Your task to perform on an android device: turn off location history Image 0: 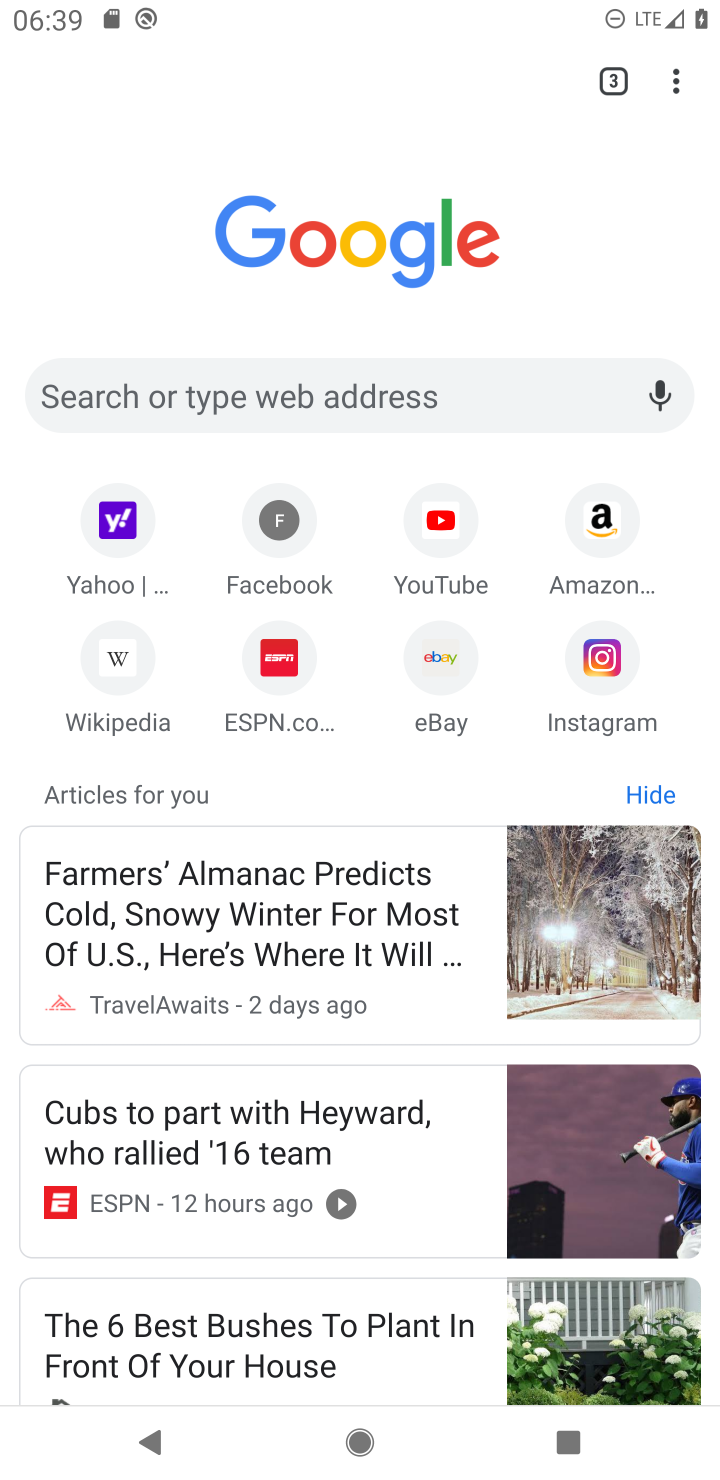
Step 0: press home button
Your task to perform on an android device: turn off location history Image 1: 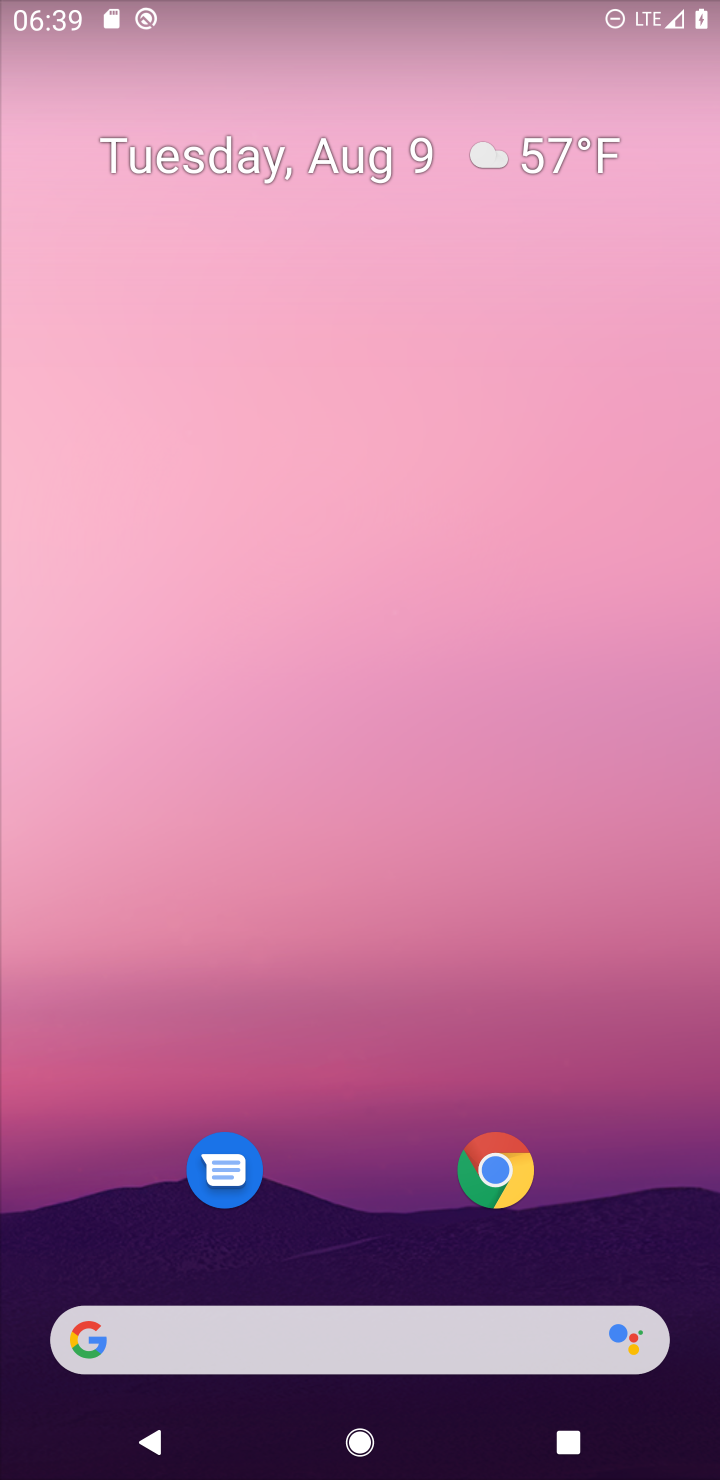
Step 1: drag from (363, 1191) to (420, 64)
Your task to perform on an android device: turn off location history Image 2: 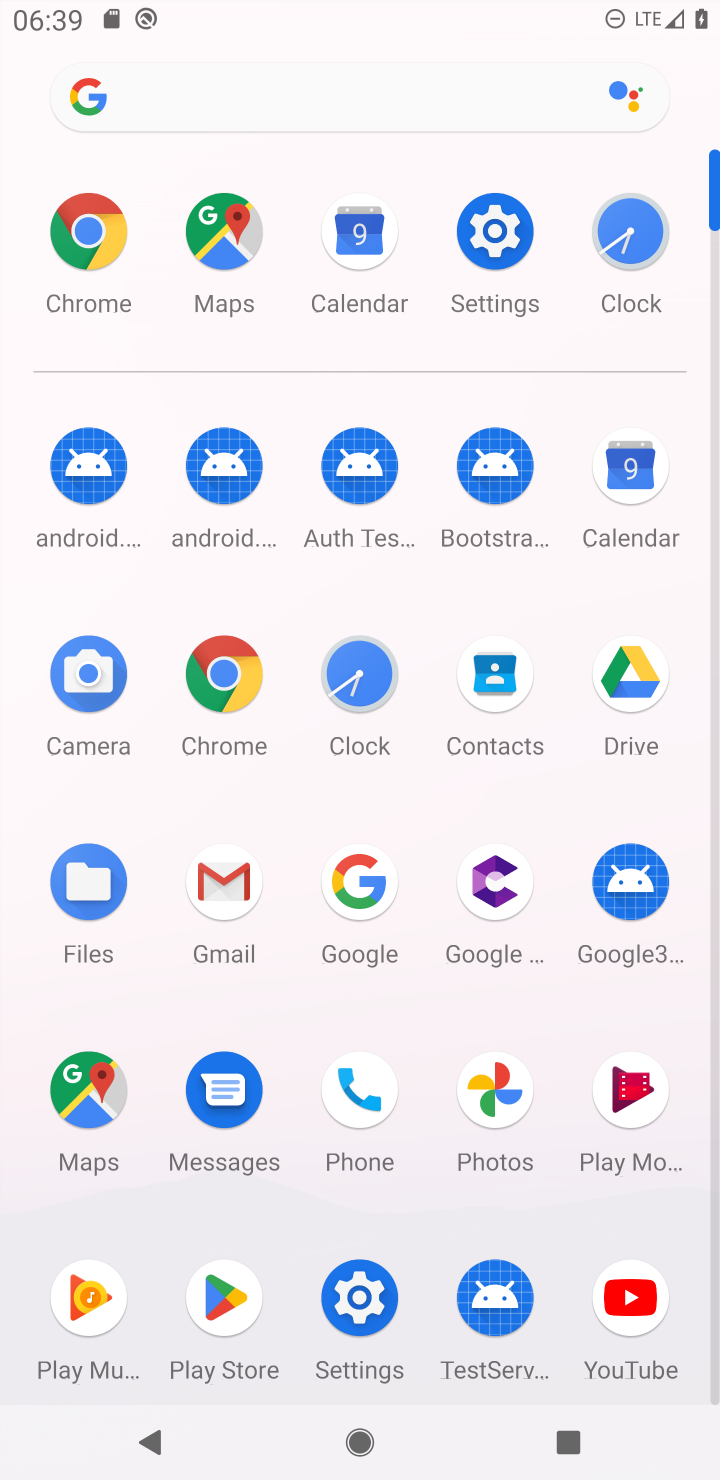
Step 2: click (497, 223)
Your task to perform on an android device: turn off location history Image 3: 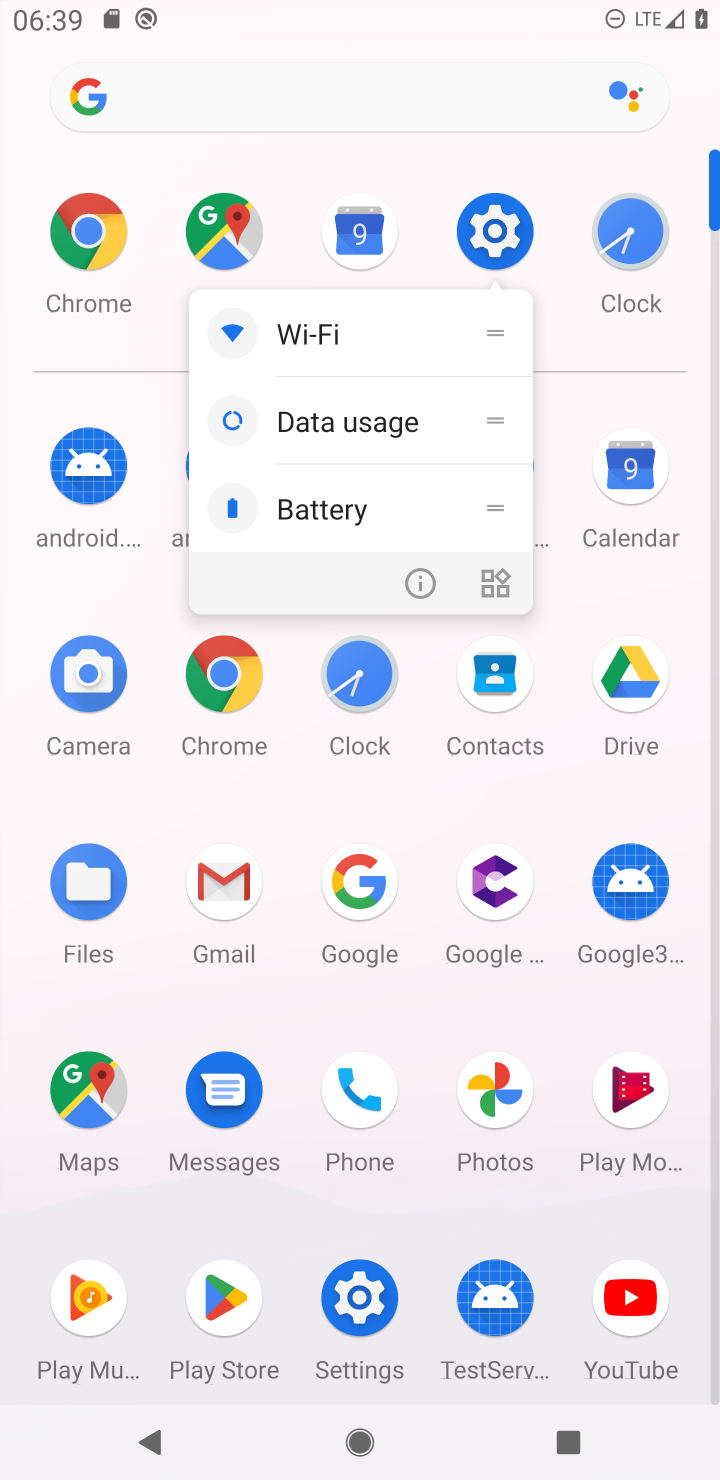
Step 3: click (497, 223)
Your task to perform on an android device: turn off location history Image 4: 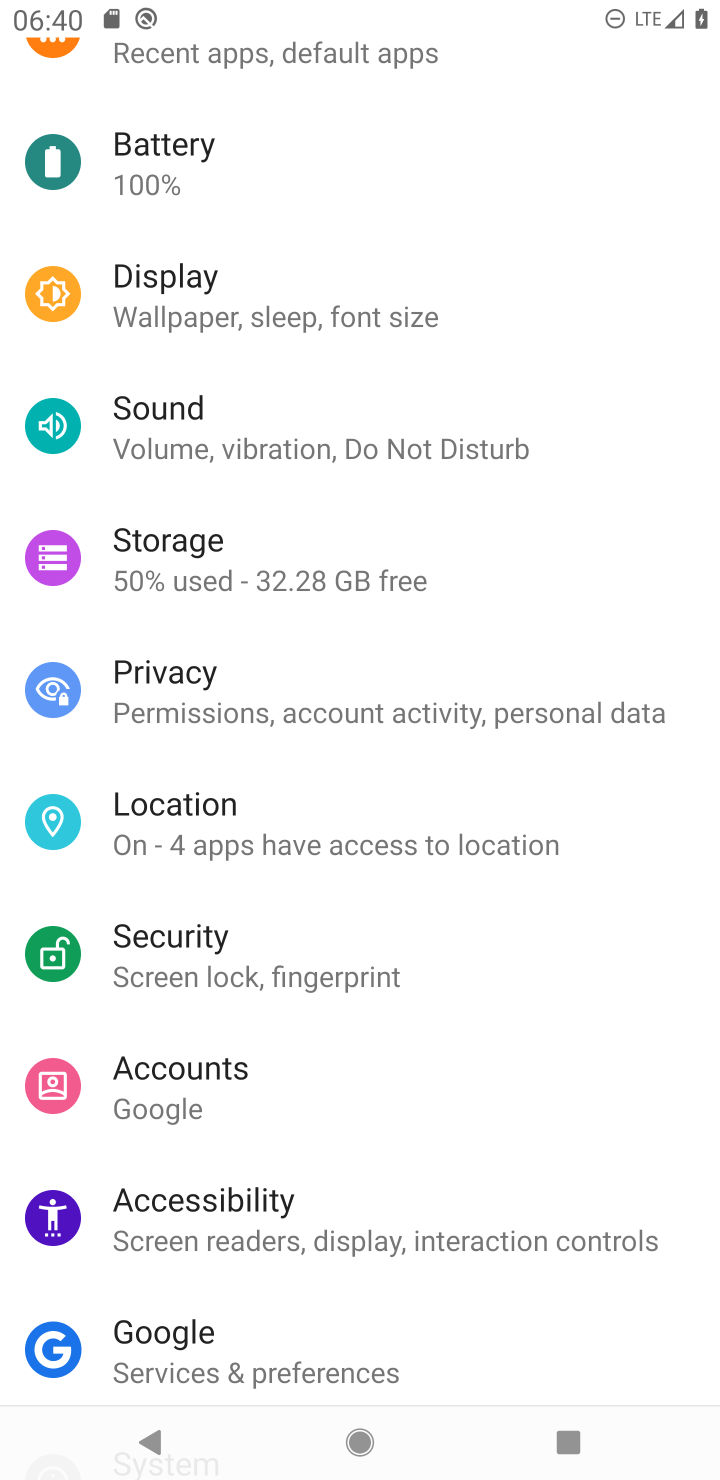
Step 4: click (171, 824)
Your task to perform on an android device: turn off location history Image 5: 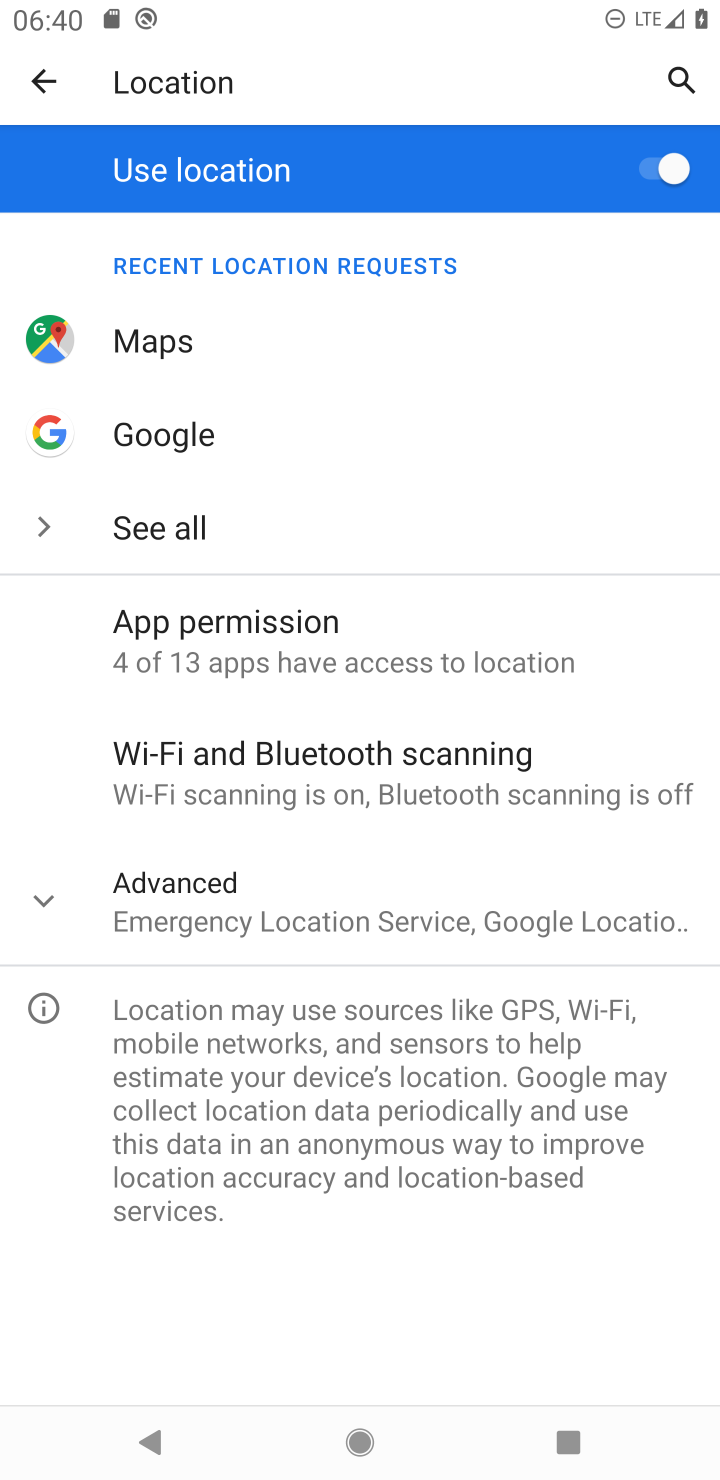
Step 5: click (191, 903)
Your task to perform on an android device: turn off location history Image 6: 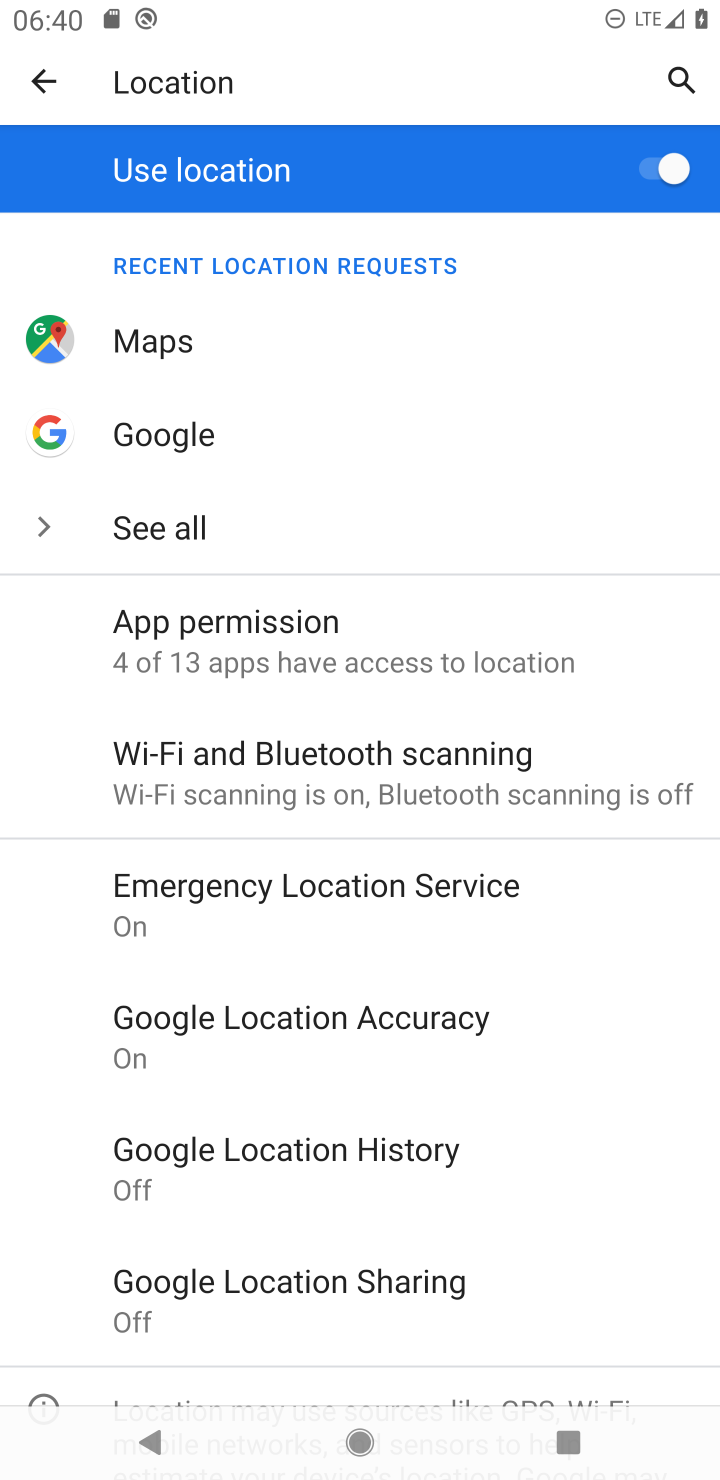
Step 6: click (243, 1161)
Your task to perform on an android device: turn off location history Image 7: 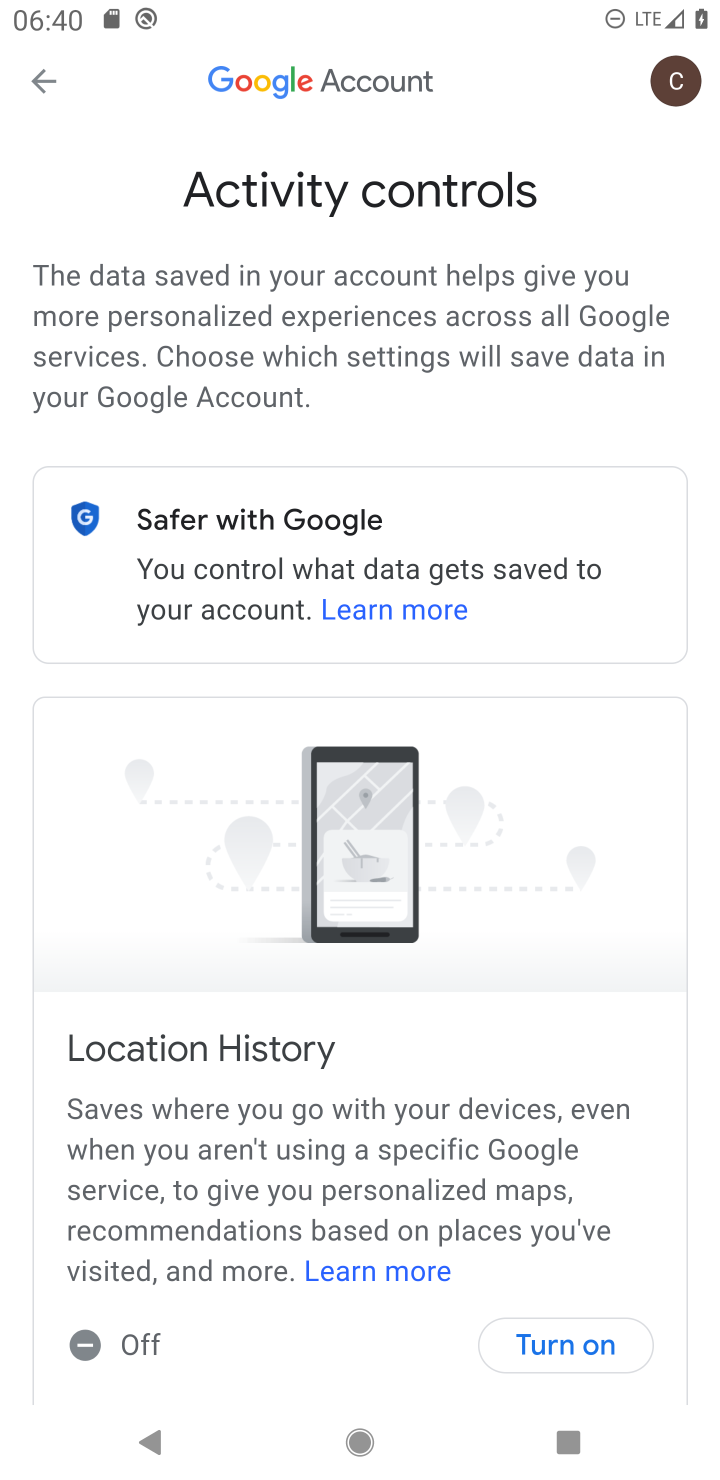
Step 7: task complete